Your task to perform on an android device: install app "DuckDuckGo Privacy Browser" Image 0: 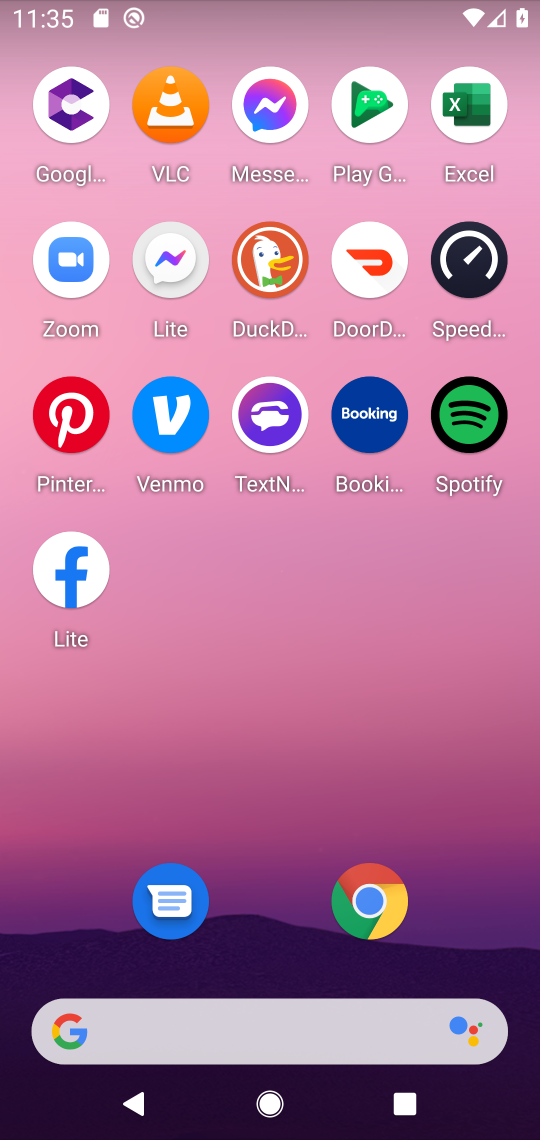
Step 0: click (281, 267)
Your task to perform on an android device: install app "DuckDuckGo Privacy Browser" Image 1: 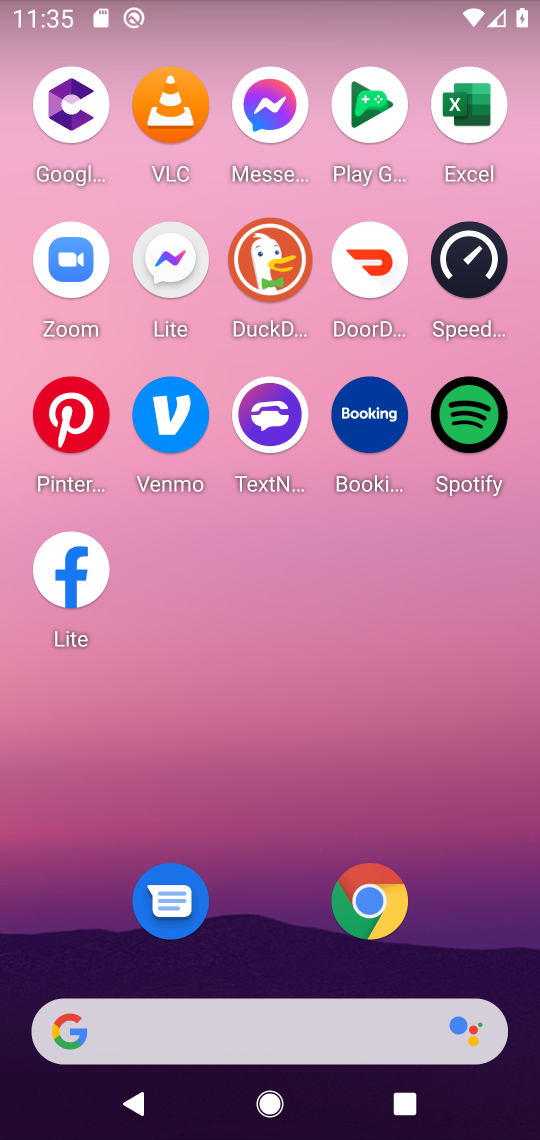
Step 1: task complete